Your task to perform on an android device: Open battery settings Image 0: 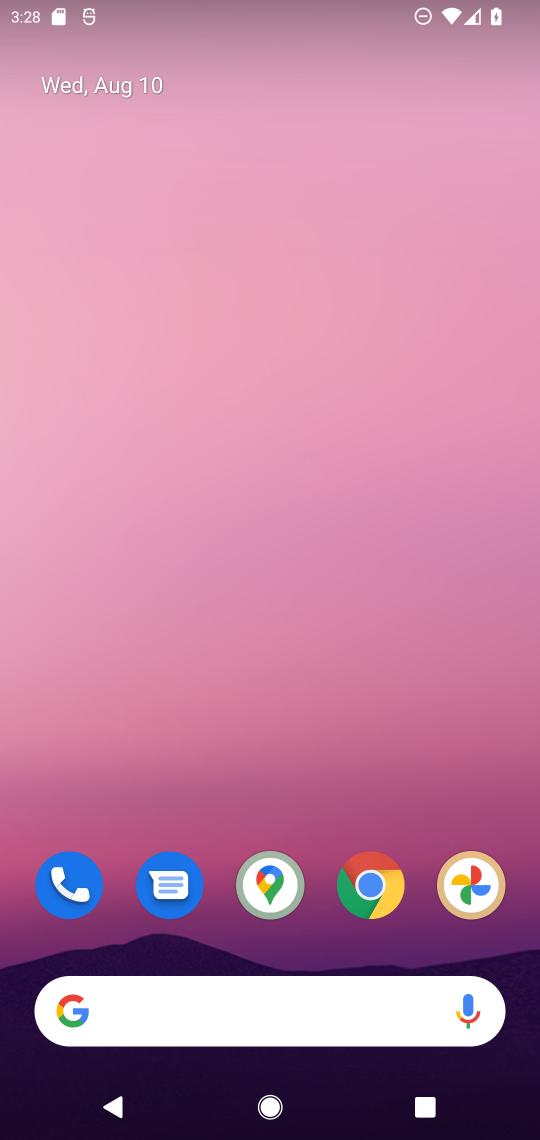
Step 0: drag from (318, 818) to (227, 77)
Your task to perform on an android device: Open battery settings Image 1: 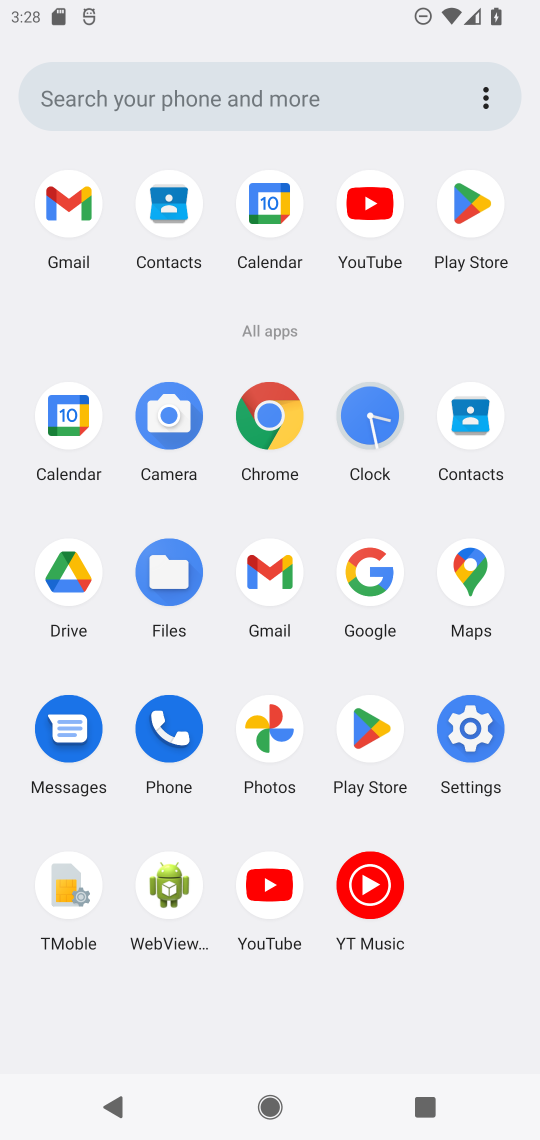
Step 1: click (477, 730)
Your task to perform on an android device: Open battery settings Image 2: 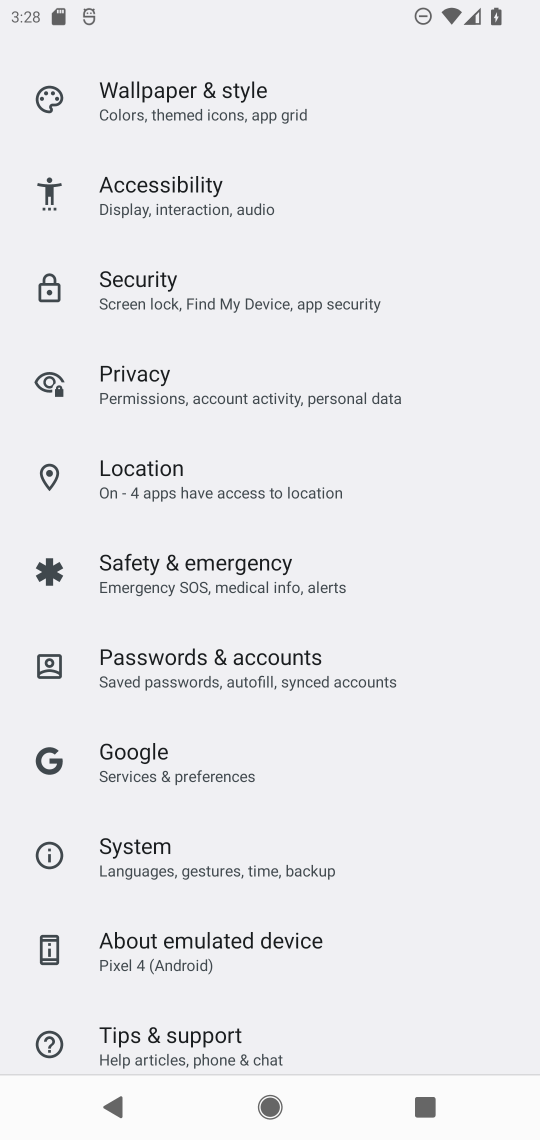
Step 2: drag from (323, 231) to (290, 784)
Your task to perform on an android device: Open battery settings Image 3: 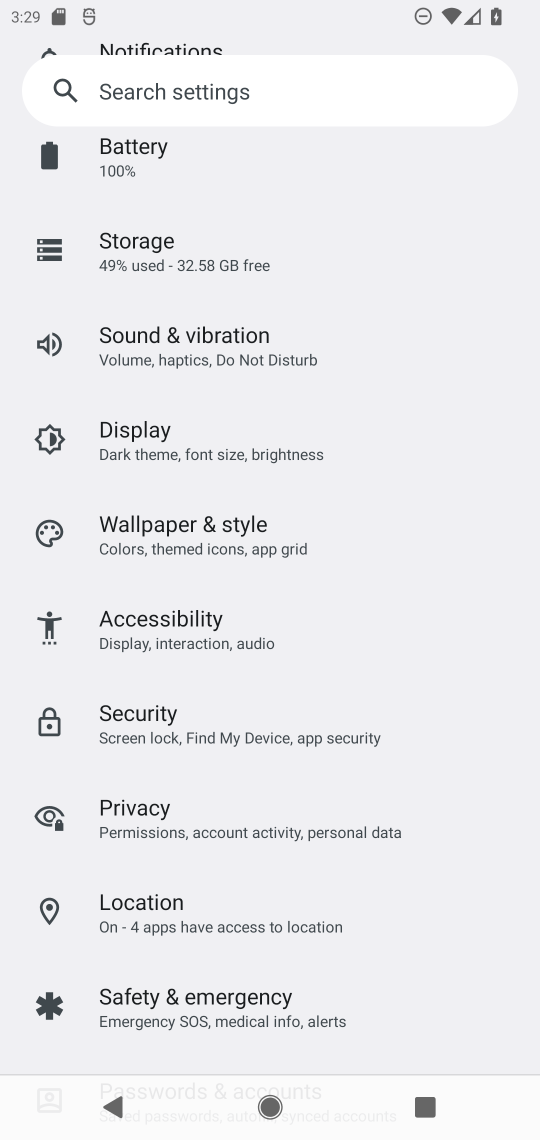
Step 3: click (128, 151)
Your task to perform on an android device: Open battery settings Image 4: 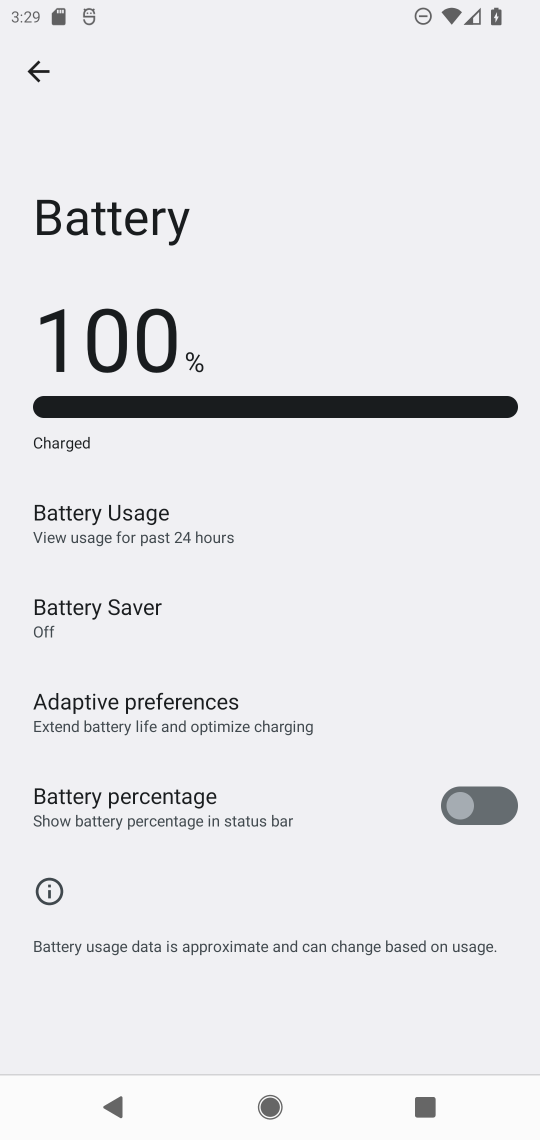
Step 4: task complete